Your task to perform on an android device: Go to Android settings Image 0: 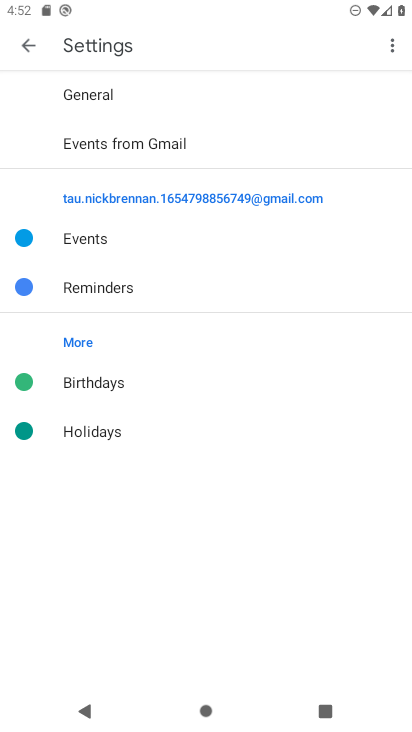
Step 0: press home button
Your task to perform on an android device: Go to Android settings Image 1: 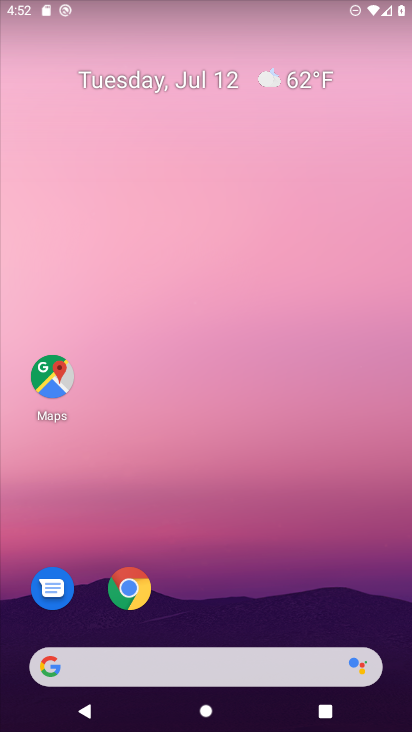
Step 1: drag from (247, 601) to (269, 65)
Your task to perform on an android device: Go to Android settings Image 2: 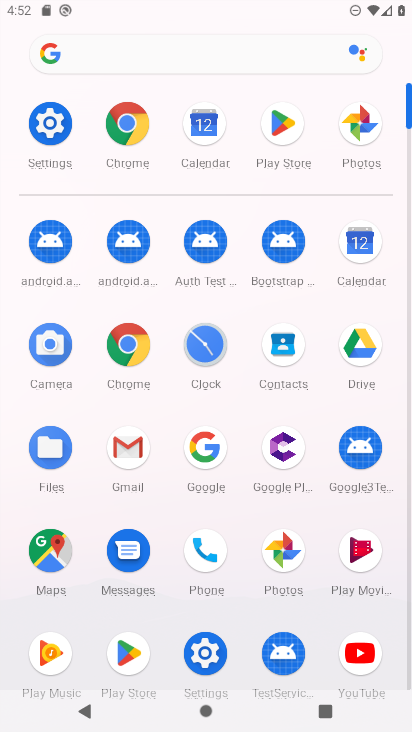
Step 2: click (58, 120)
Your task to perform on an android device: Go to Android settings Image 3: 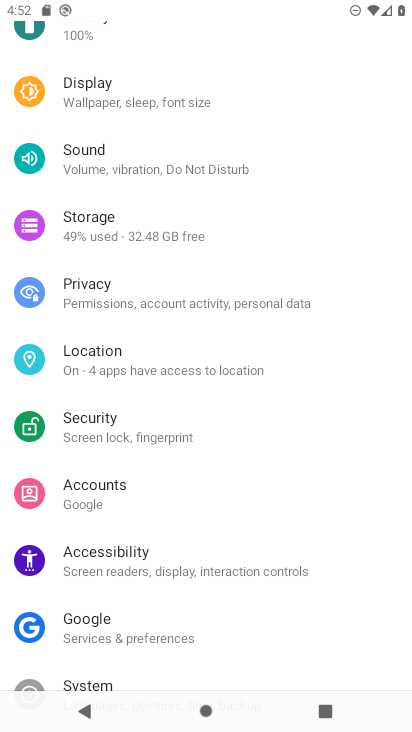
Step 3: drag from (192, 619) to (225, 140)
Your task to perform on an android device: Go to Android settings Image 4: 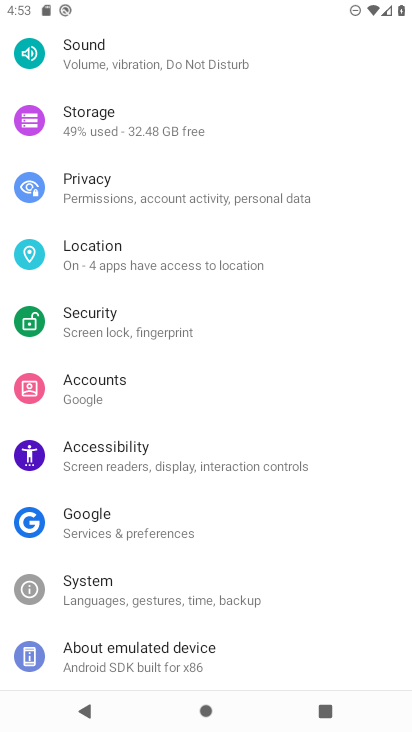
Step 4: drag from (254, 581) to (266, 312)
Your task to perform on an android device: Go to Android settings Image 5: 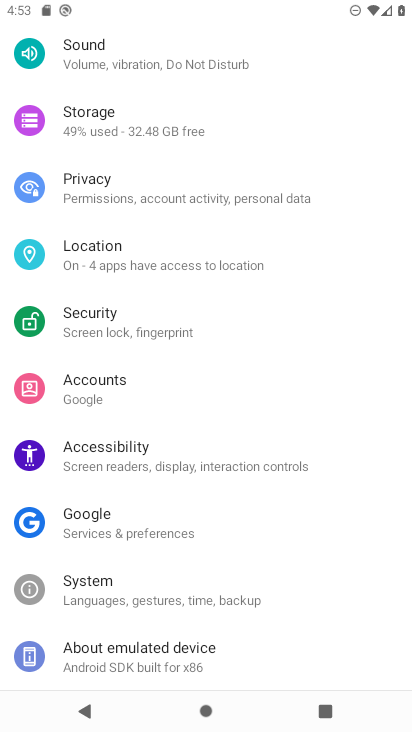
Step 5: drag from (148, 606) to (148, 530)
Your task to perform on an android device: Go to Android settings Image 6: 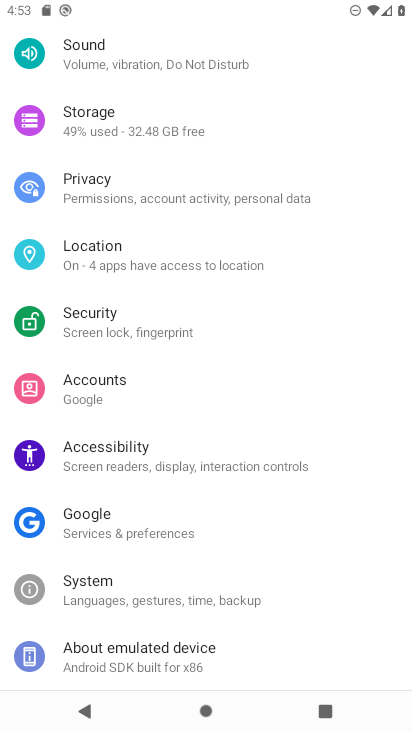
Step 6: click (125, 654)
Your task to perform on an android device: Go to Android settings Image 7: 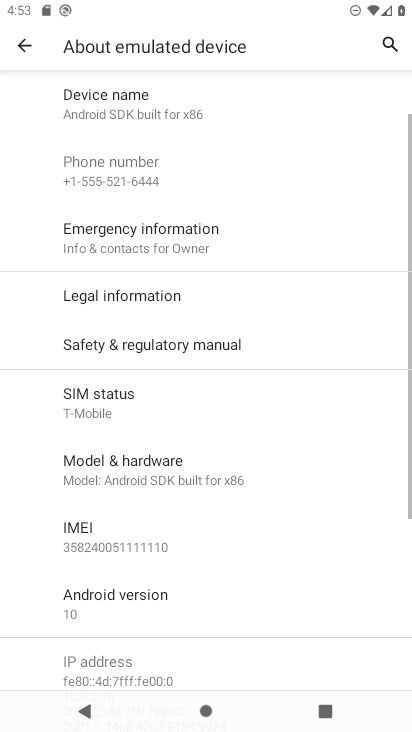
Step 7: drag from (211, 487) to (213, 399)
Your task to perform on an android device: Go to Android settings Image 8: 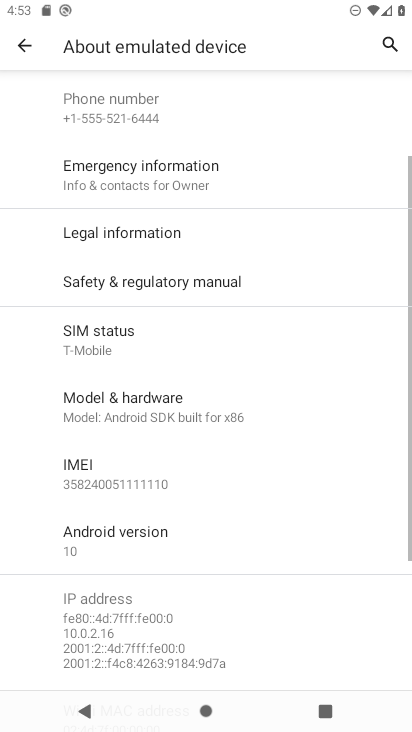
Step 8: click (114, 551)
Your task to perform on an android device: Go to Android settings Image 9: 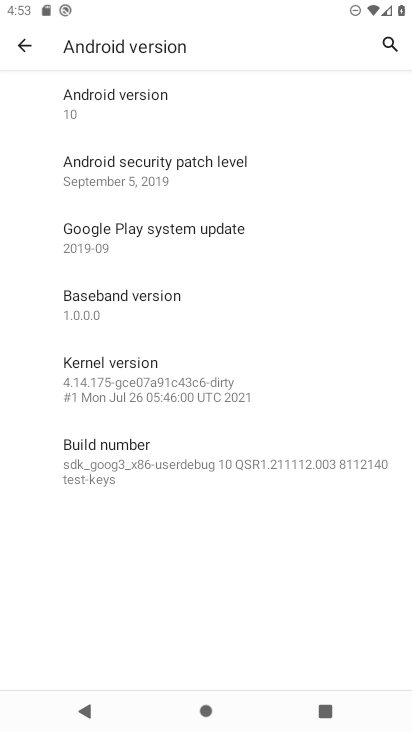
Step 9: task complete